Your task to perform on an android device: set the timer Image 0: 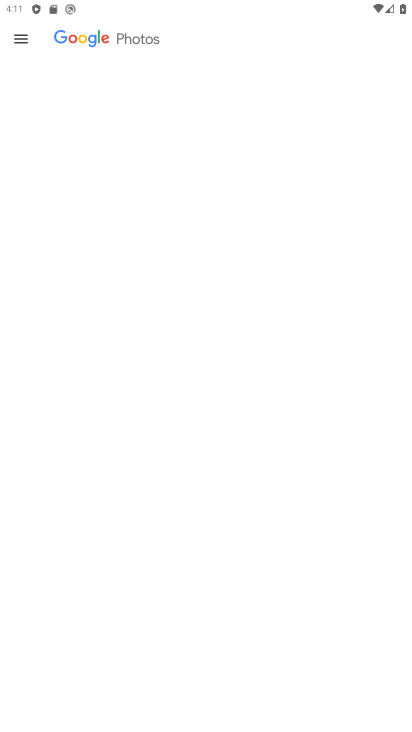
Step 0: press home button
Your task to perform on an android device: set the timer Image 1: 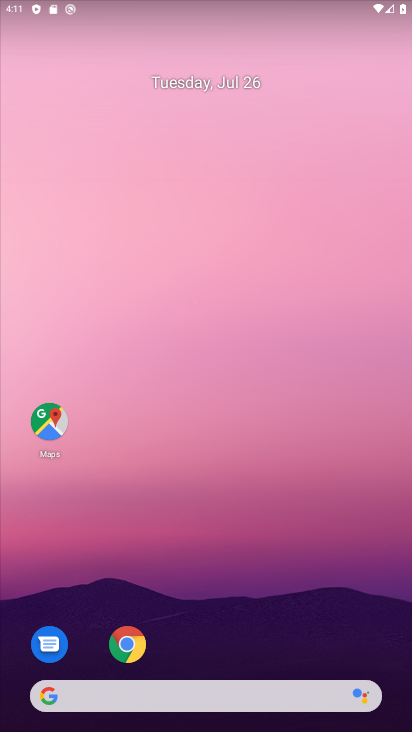
Step 1: drag from (241, 638) to (199, 95)
Your task to perform on an android device: set the timer Image 2: 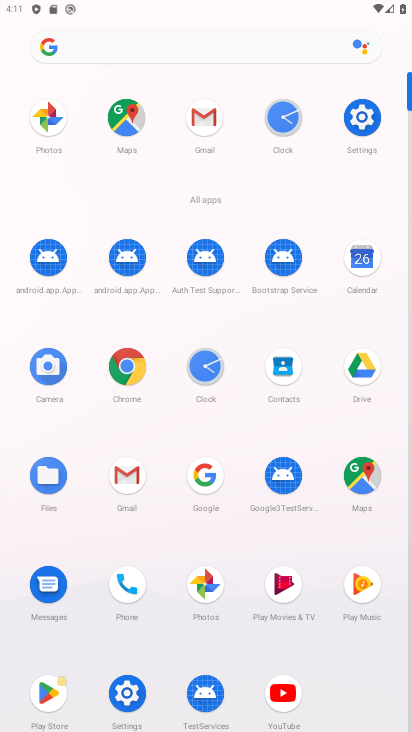
Step 2: click (287, 124)
Your task to perform on an android device: set the timer Image 3: 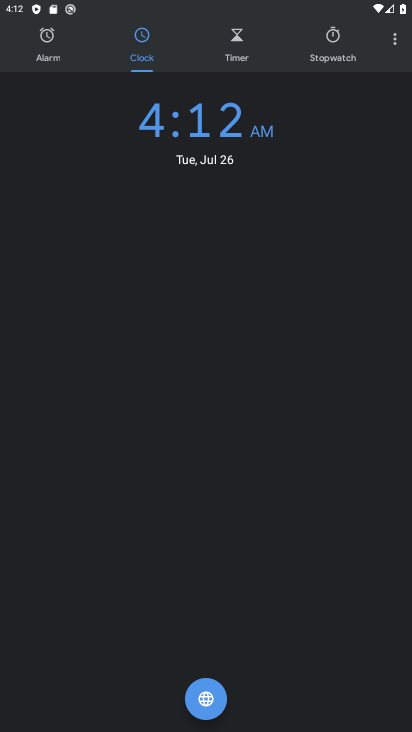
Step 3: click (236, 40)
Your task to perform on an android device: set the timer Image 4: 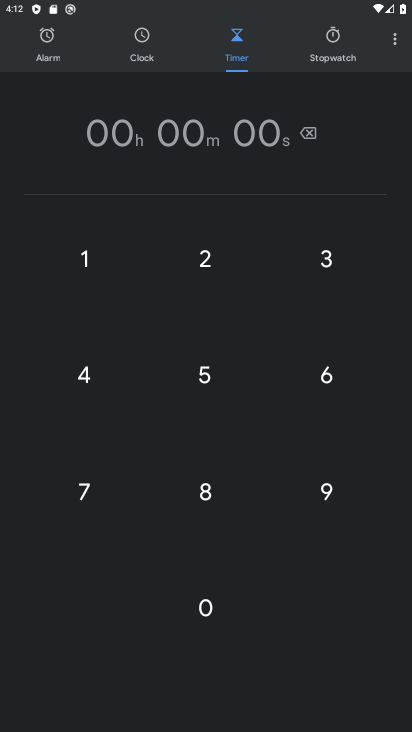
Step 4: type "100000"
Your task to perform on an android device: set the timer Image 5: 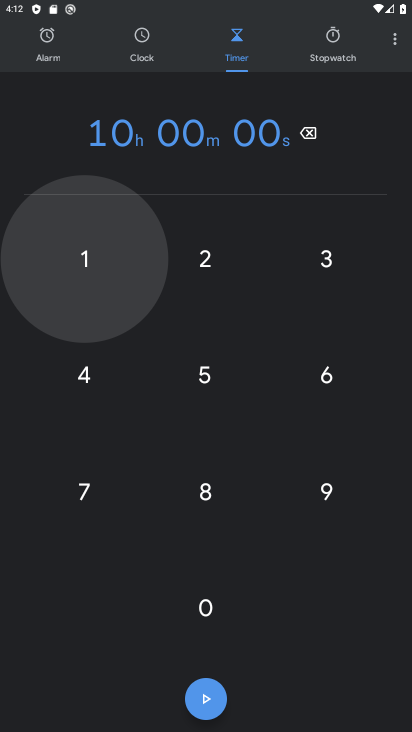
Step 5: click (214, 685)
Your task to perform on an android device: set the timer Image 6: 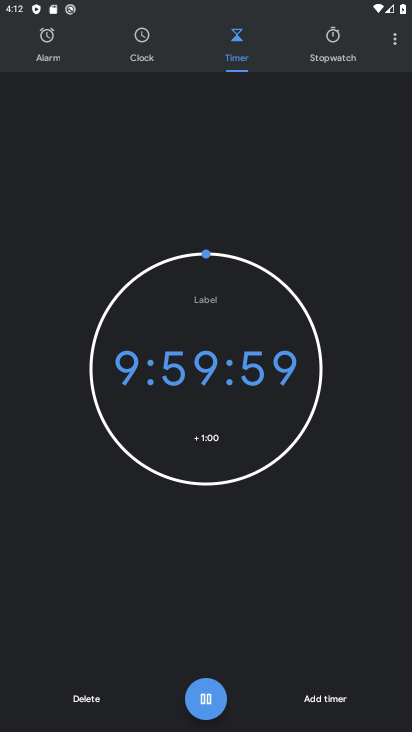
Step 6: task complete